Your task to perform on an android device: open the mobile data screen to see how much data has been used Image 0: 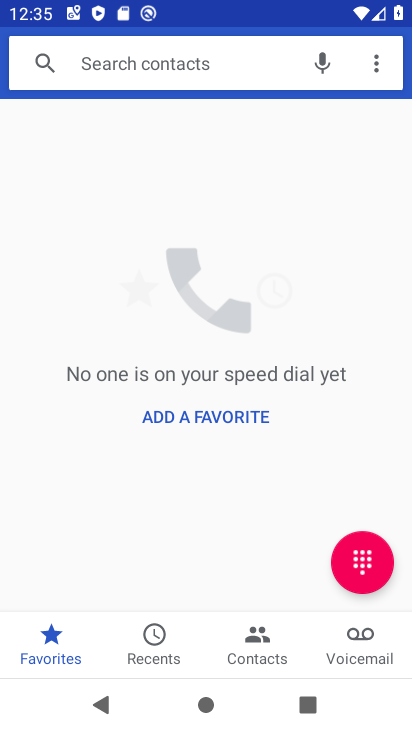
Step 0: press home button
Your task to perform on an android device: open the mobile data screen to see how much data has been used Image 1: 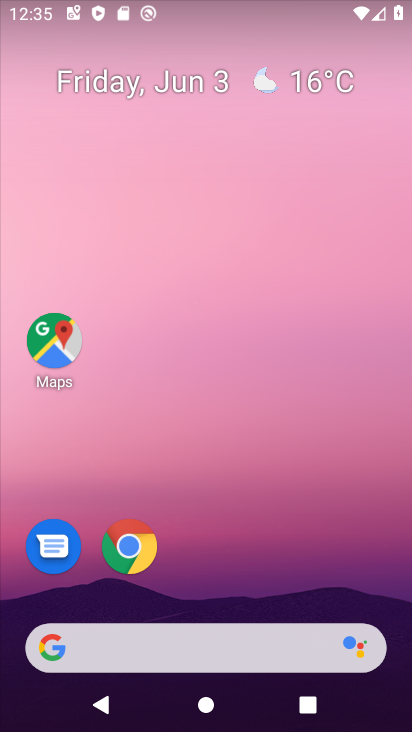
Step 1: drag from (246, 527) to (149, 3)
Your task to perform on an android device: open the mobile data screen to see how much data has been used Image 2: 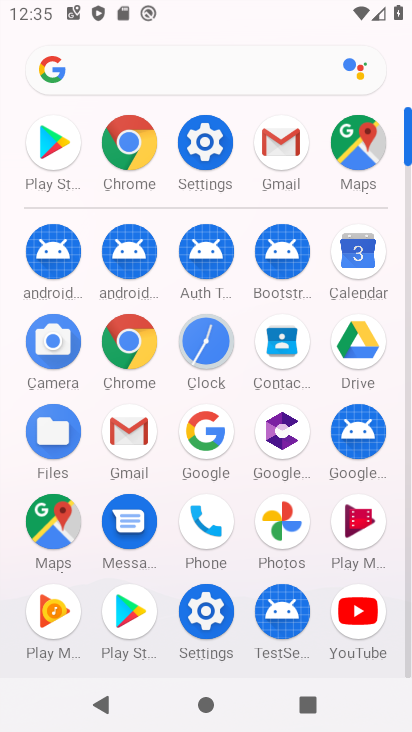
Step 2: click (206, 135)
Your task to perform on an android device: open the mobile data screen to see how much data has been used Image 3: 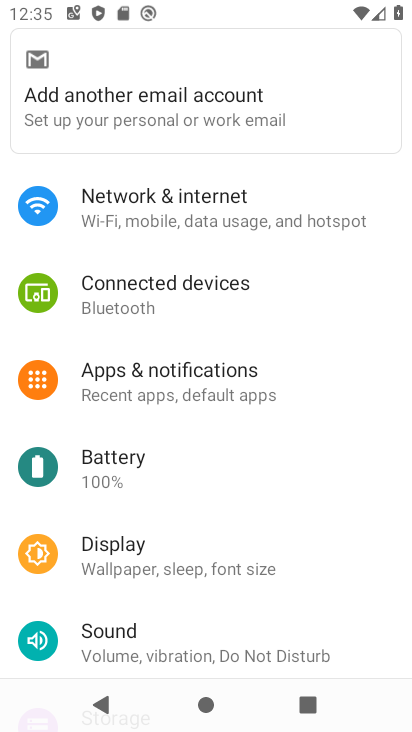
Step 3: click (169, 203)
Your task to perform on an android device: open the mobile data screen to see how much data has been used Image 4: 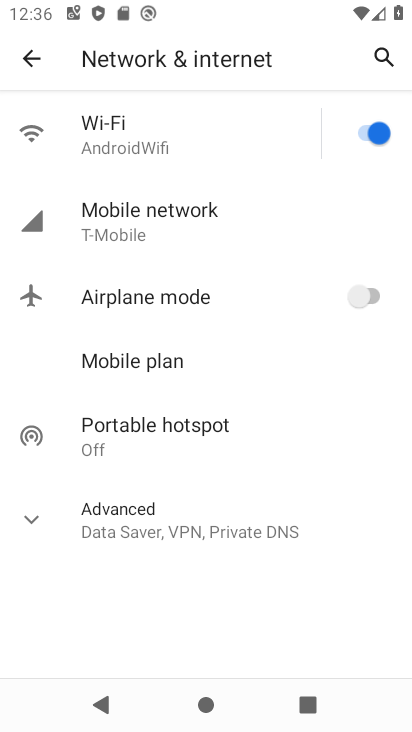
Step 4: click (145, 214)
Your task to perform on an android device: open the mobile data screen to see how much data has been used Image 5: 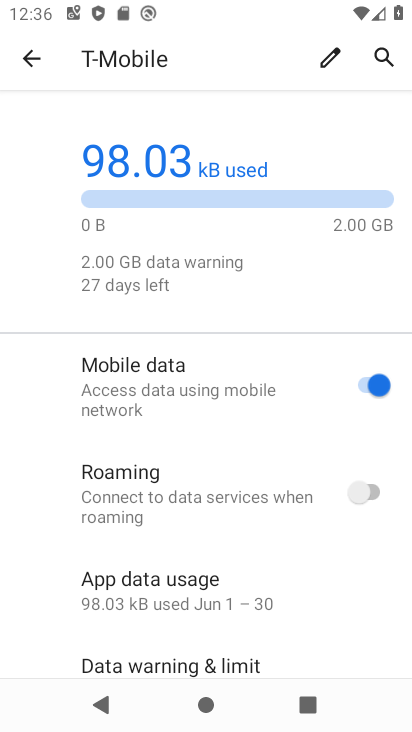
Step 5: task complete